Your task to perform on an android device: all mails in gmail Image 0: 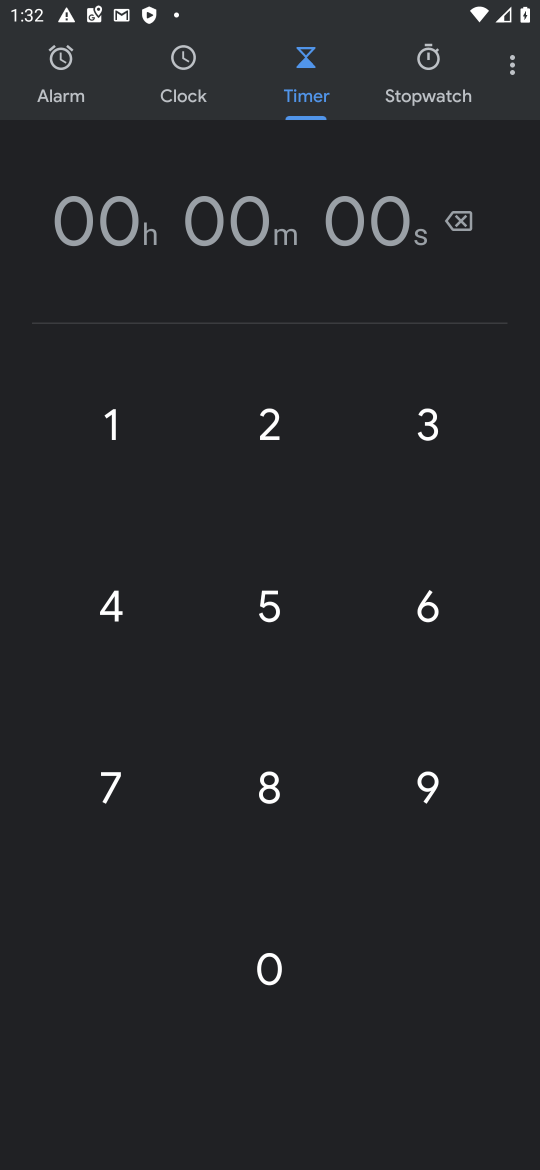
Step 0: press home button
Your task to perform on an android device: all mails in gmail Image 1: 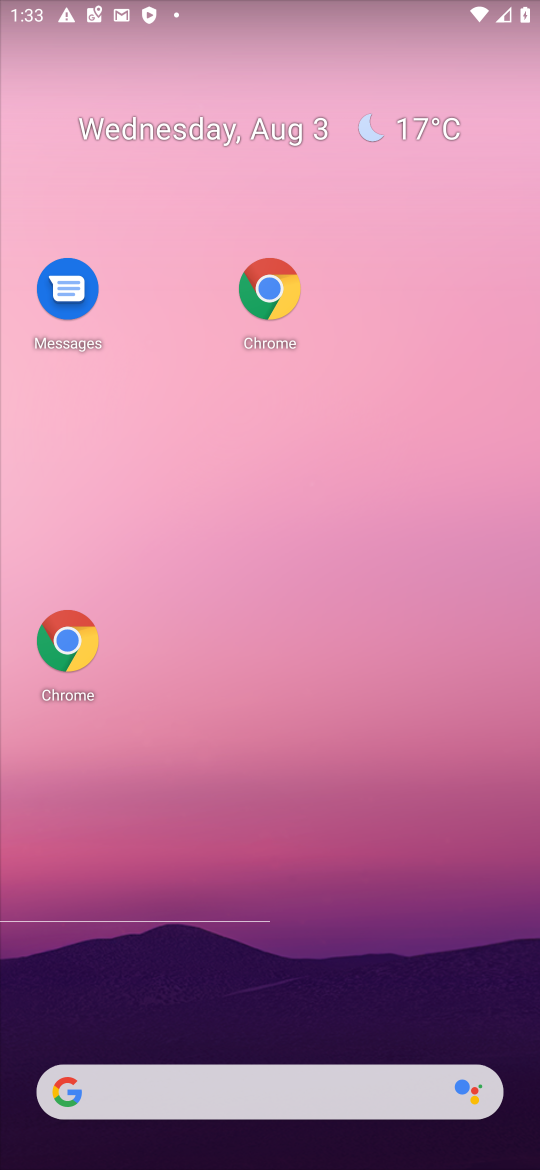
Step 1: drag from (389, 932) to (346, 214)
Your task to perform on an android device: all mails in gmail Image 2: 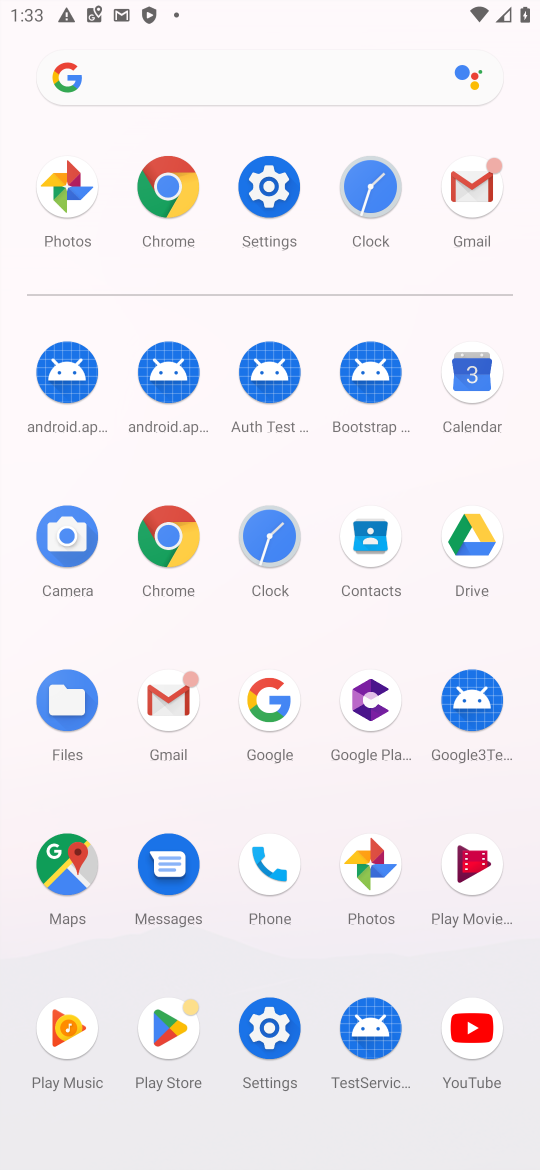
Step 2: click (475, 227)
Your task to perform on an android device: all mails in gmail Image 3: 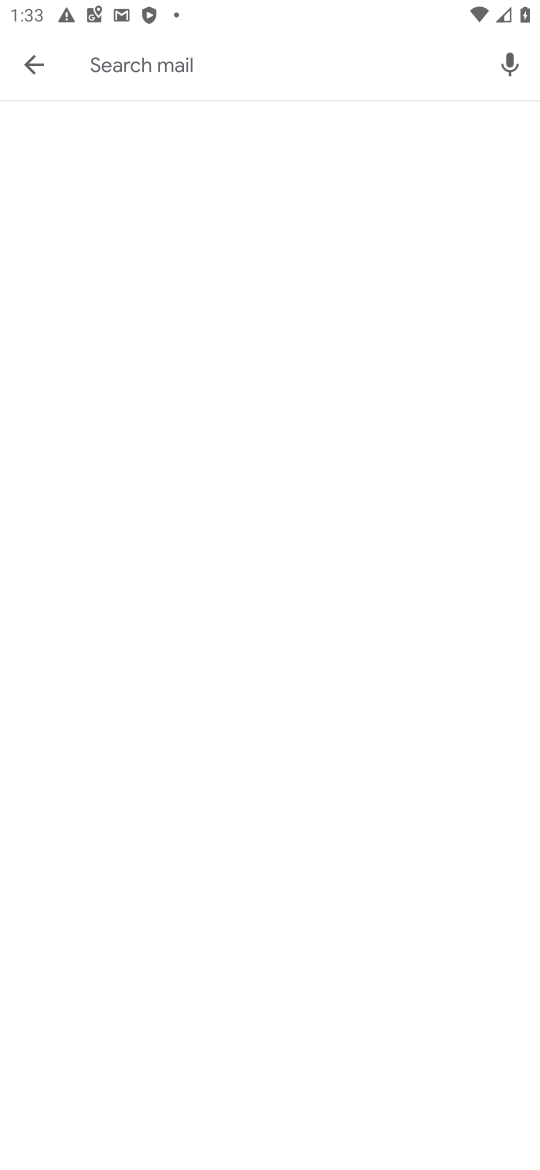
Step 3: click (23, 83)
Your task to perform on an android device: all mails in gmail Image 4: 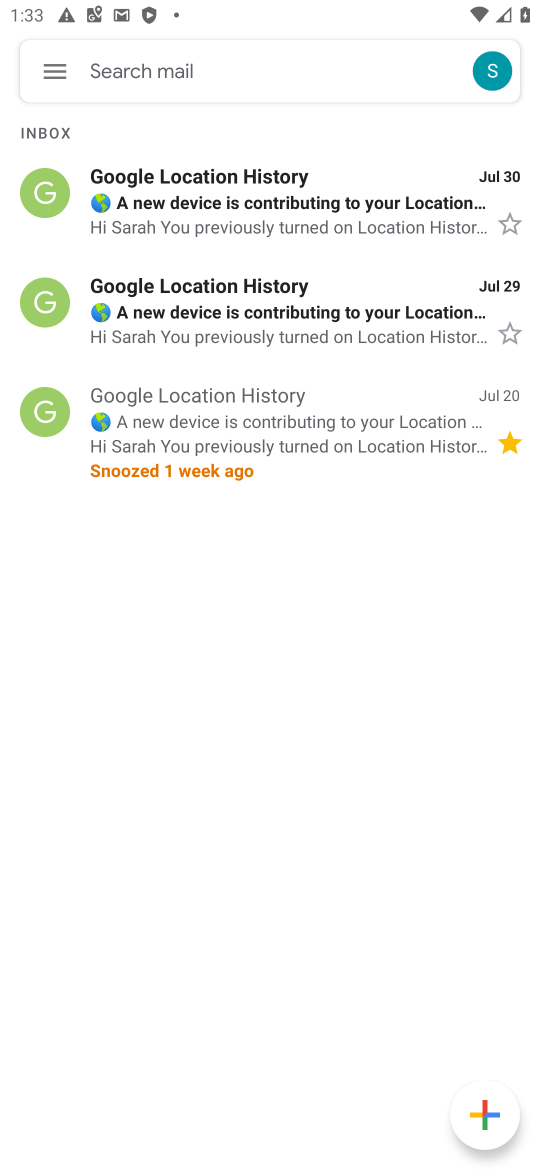
Step 4: click (46, 79)
Your task to perform on an android device: all mails in gmail Image 5: 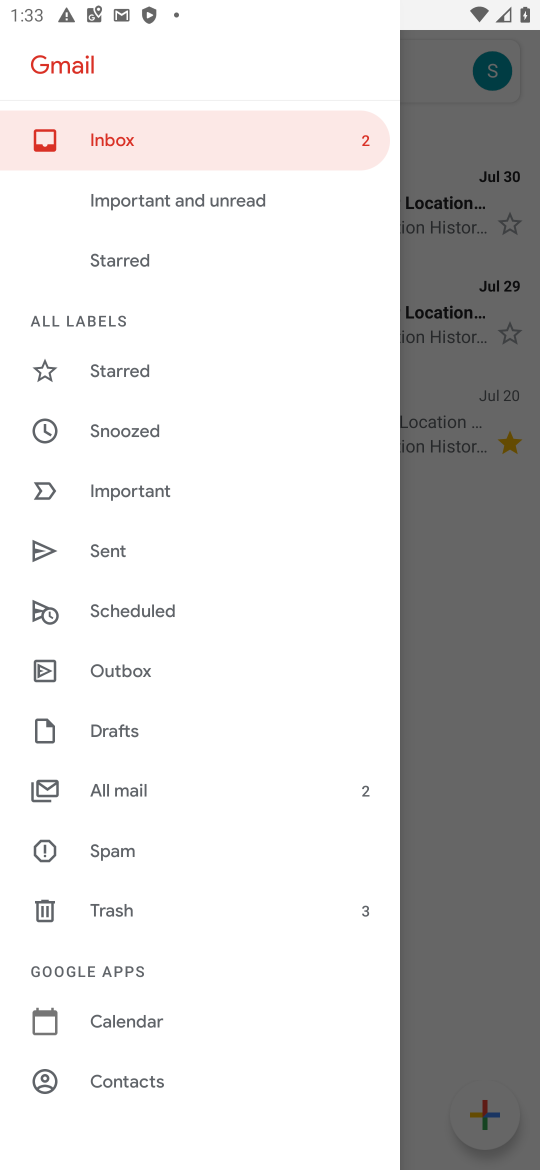
Step 5: click (208, 792)
Your task to perform on an android device: all mails in gmail Image 6: 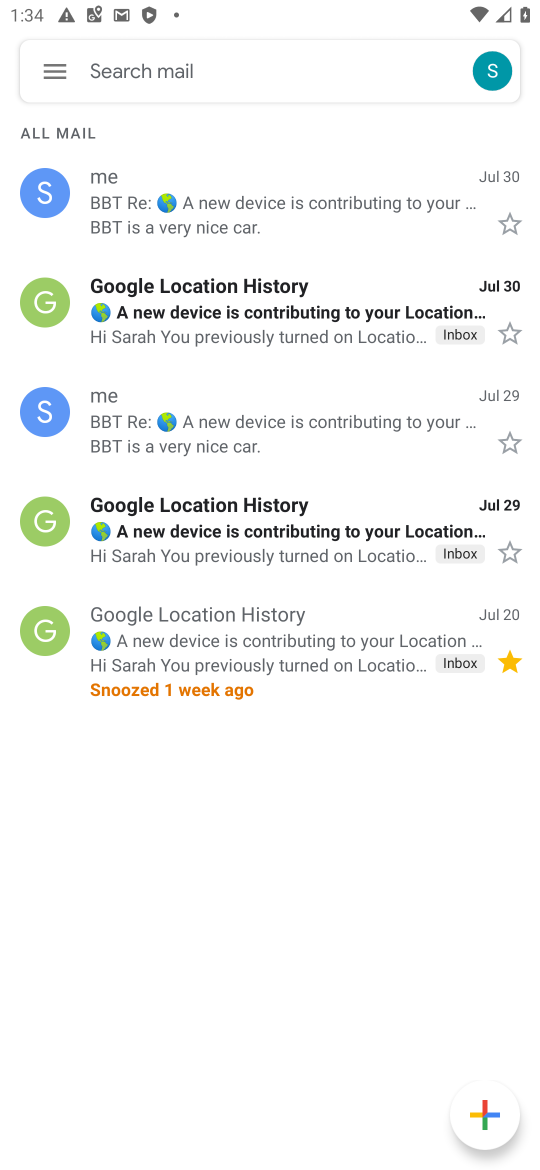
Step 6: task complete